Your task to perform on an android device: What's the weather? Image 0: 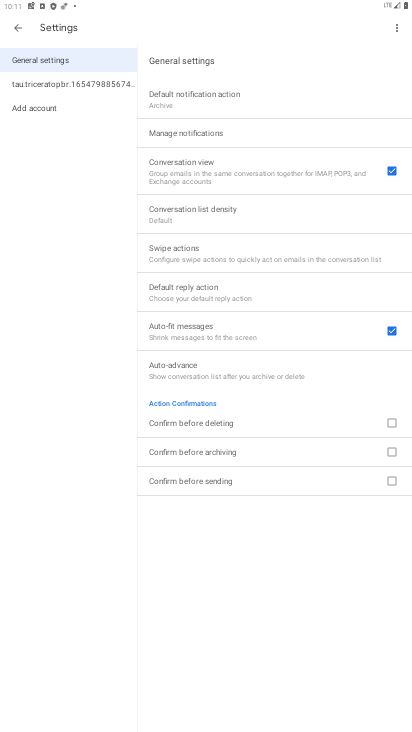
Step 0: press home button
Your task to perform on an android device: What's the weather? Image 1: 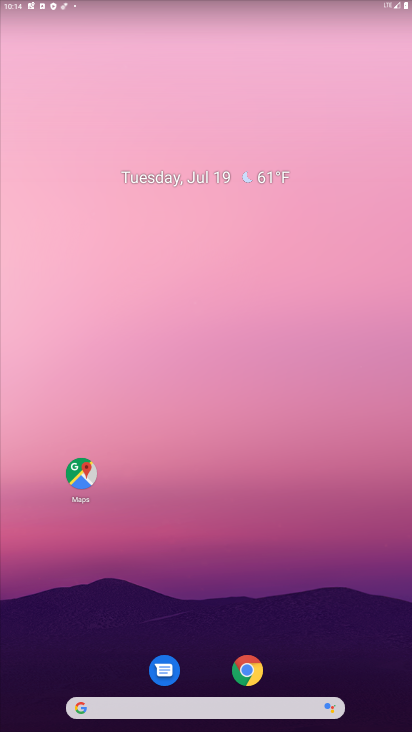
Step 1: click (225, 716)
Your task to perform on an android device: What's the weather? Image 2: 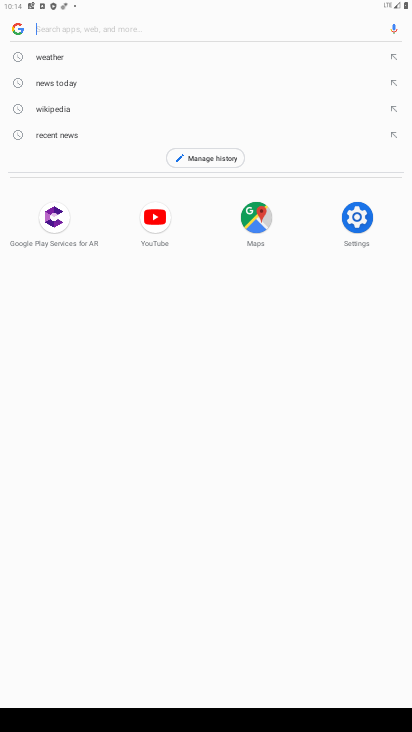
Step 2: click (150, 62)
Your task to perform on an android device: What's the weather? Image 3: 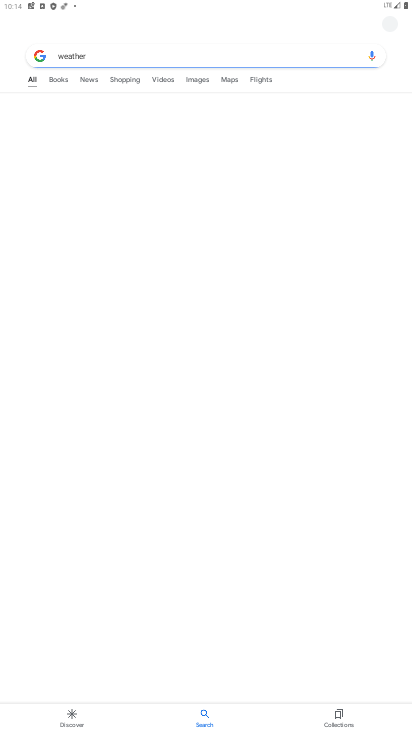
Step 3: task complete